Your task to perform on an android device: check storage Image 0: 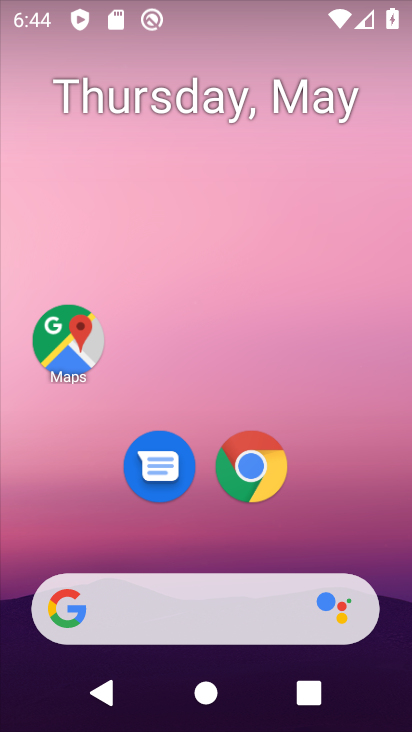
Step 0: drag from (346, 506) to (238, 135)
Your task to perform on an android device: check storage Image 1: 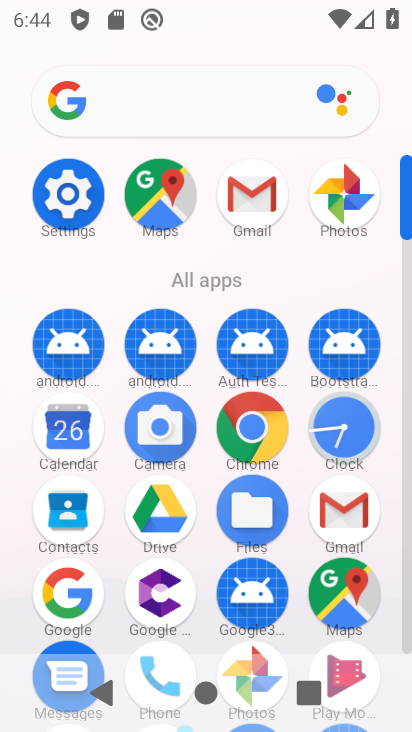
Step 1: click (67, 189)
Your task to perform on an android device: check storage Image 2: 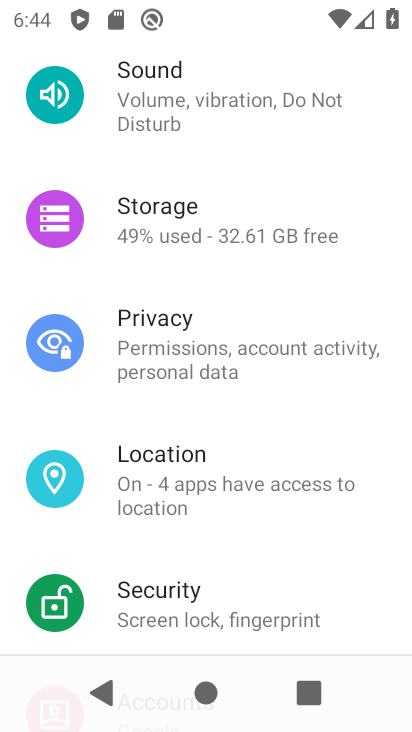
Step 2: click (161, 202)
Your task to perform on an android device: check storage Image 3: 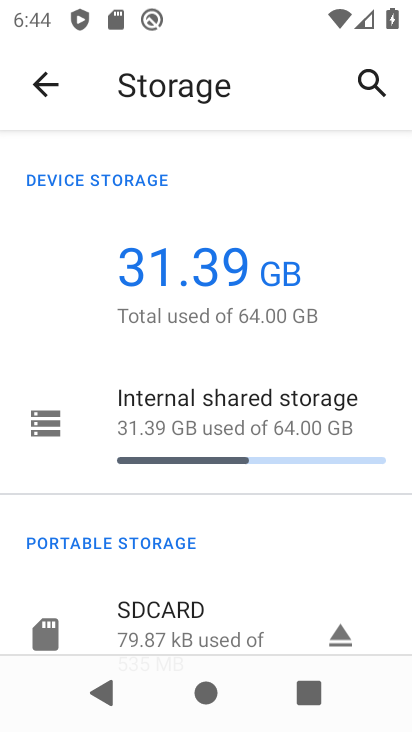
Step 3: task complete